Your task to perform on an android device: What is the capital of Japan? Image 0: 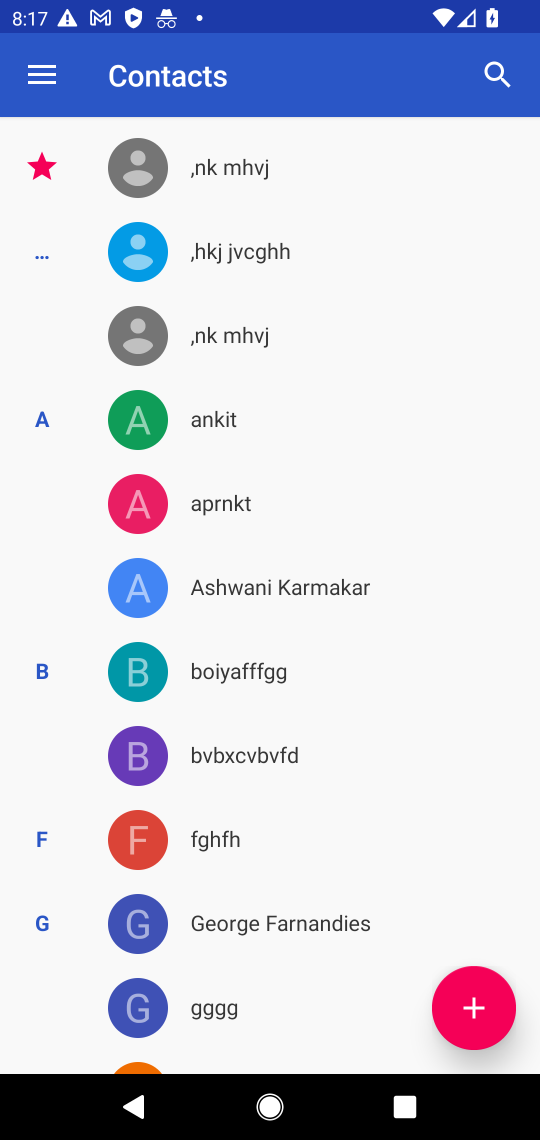
Step 0: press home button
Your task to perform on an android device: What is the capital of Japan? Image 1: 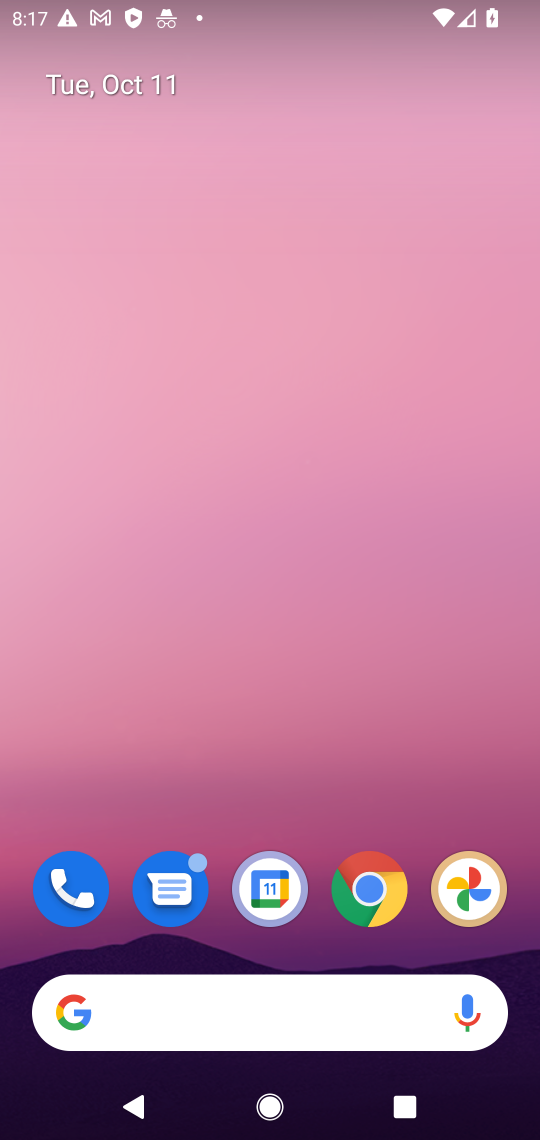
Step 1: click (185, 1019)
Your task to perform on an android device: What is the capital of Japan? Image 2: 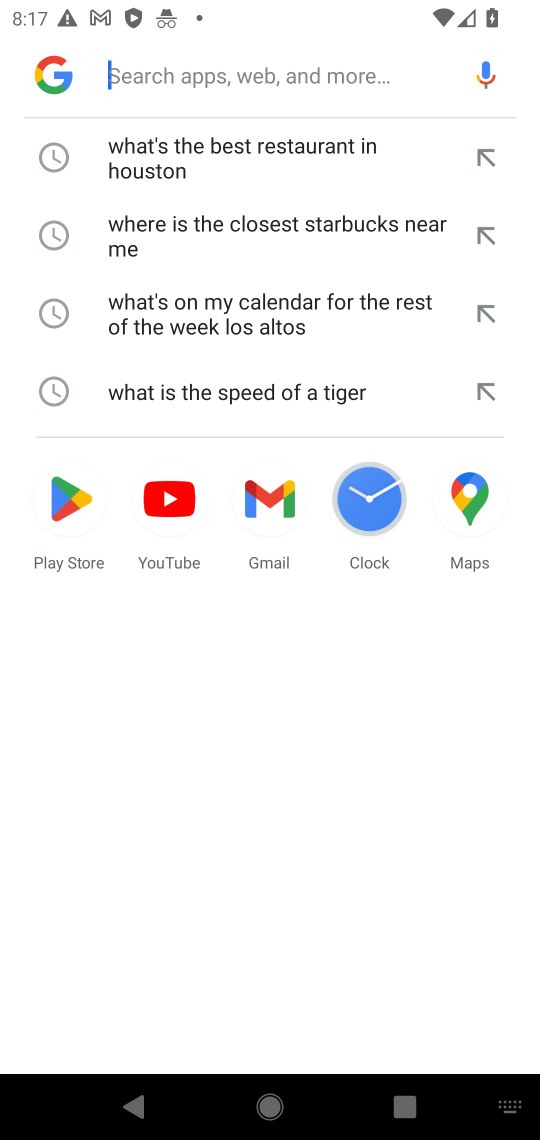
Step 2: click (250, 85)
Your task to perform on an android device: What is the capital of Japan? Image 3: 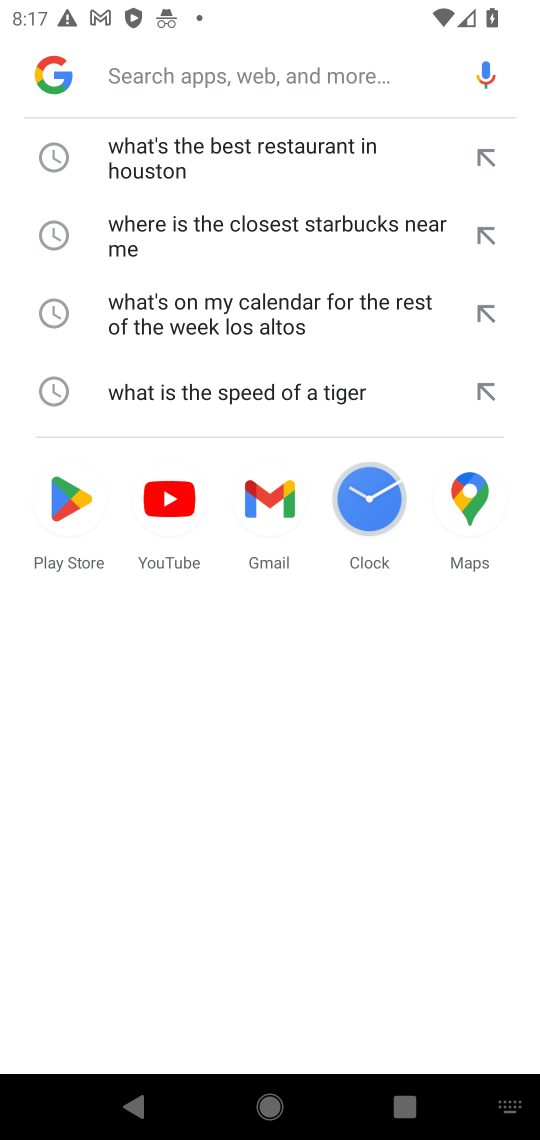
Step 3: type "What is the capital of Japan?"
Your task to perform on an android device: What is the capital of Japan? Image 4: 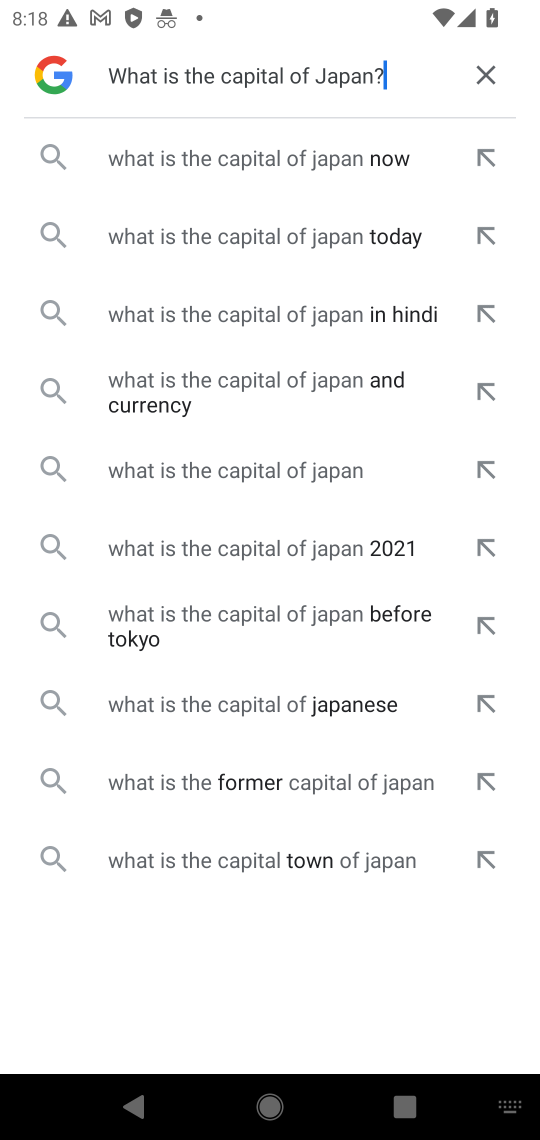
Step 4: click (254, 159)
Your task to perform on an android device: What is the capital of Japan? Image 5: 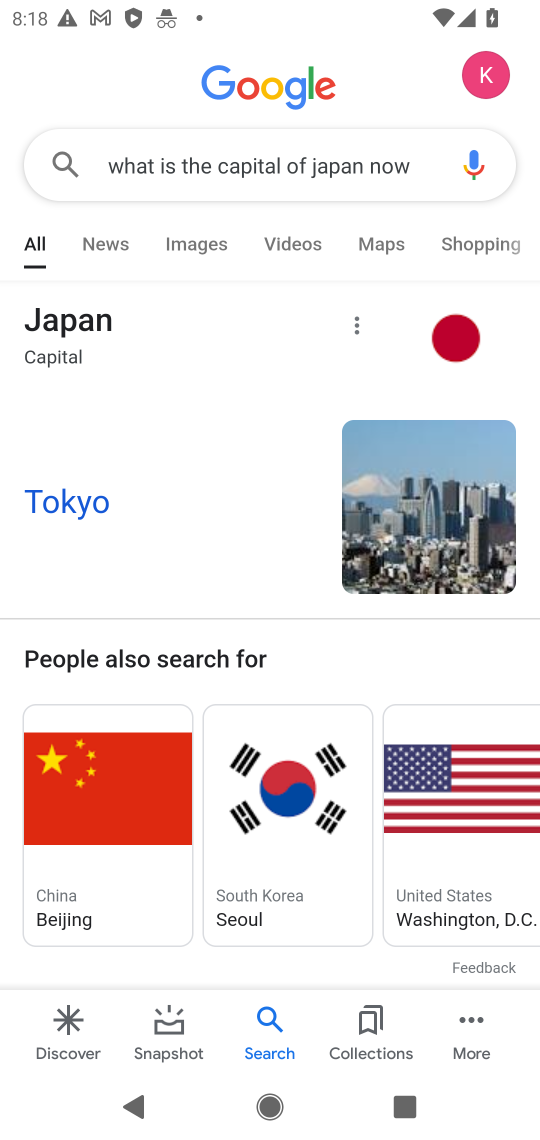
Step 5: task complete